Your task to perform on an android device: turn on priority inbox in the gmail app Image 0: 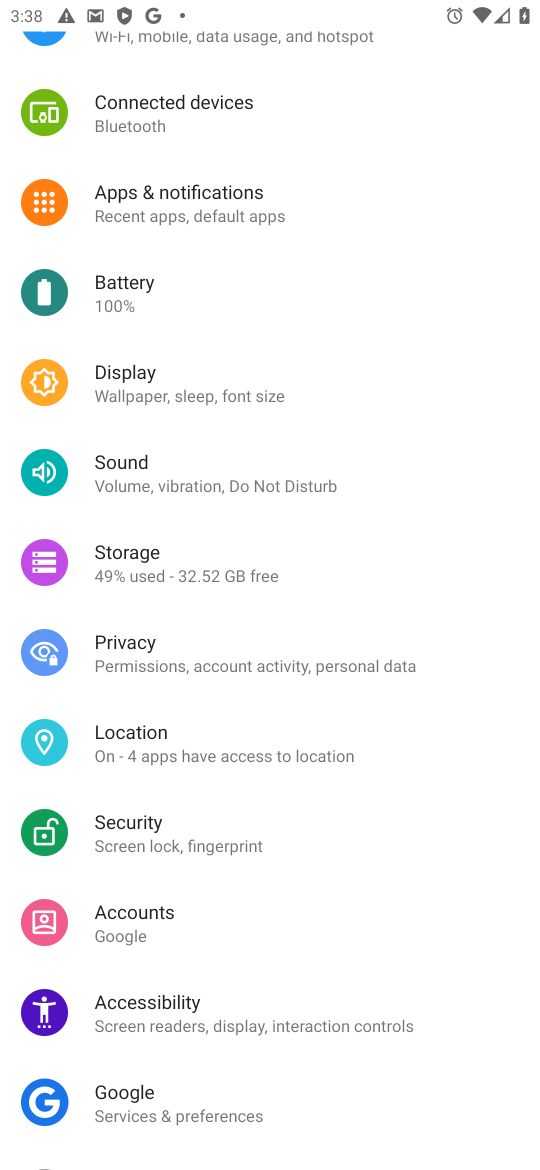
Step 0: press home button
Your task to perform on an android device: turn on priority inbox in the gmail app Image 1: 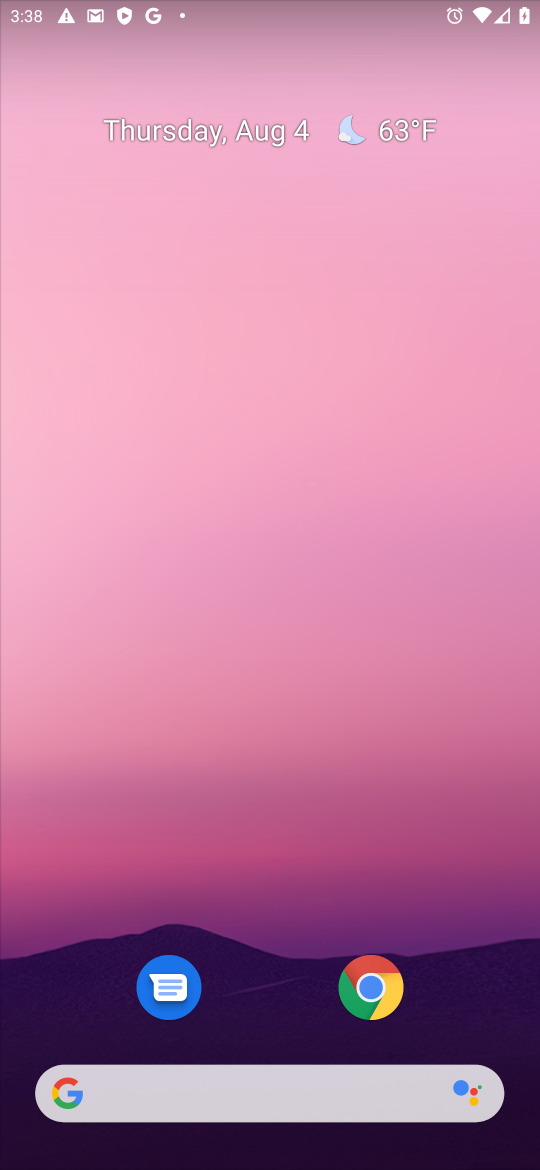
Step 1: drag from (255, 965) to (284, 219)
Your task to perform on an android device: turn on priority inbox in the gmail app Image 2: 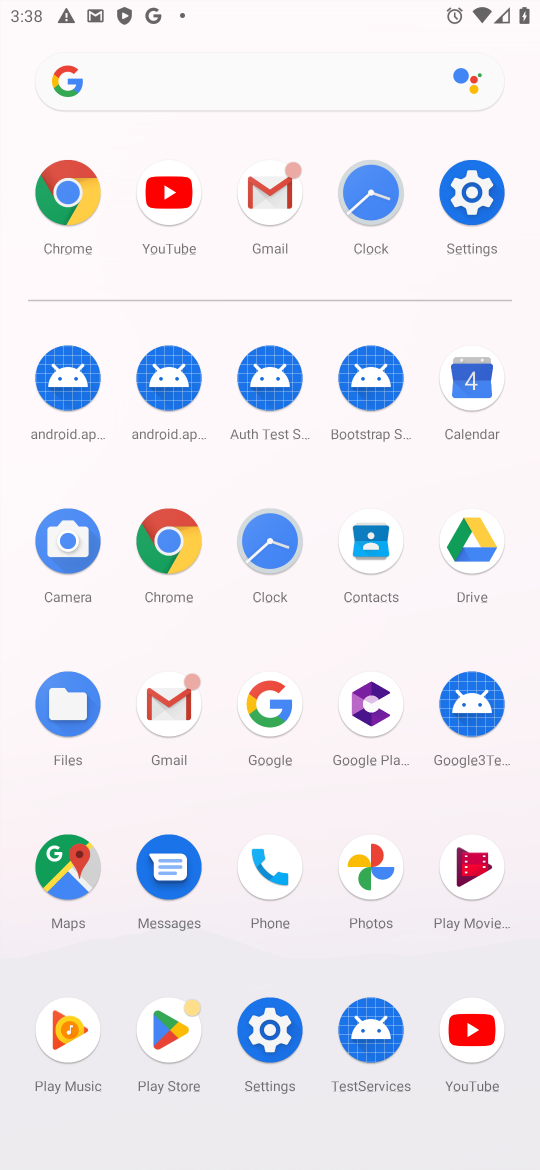
Step 2: click (273, 1040)
Your task to perform on an android device: turn on priority inbox in the gmail app Image 3: 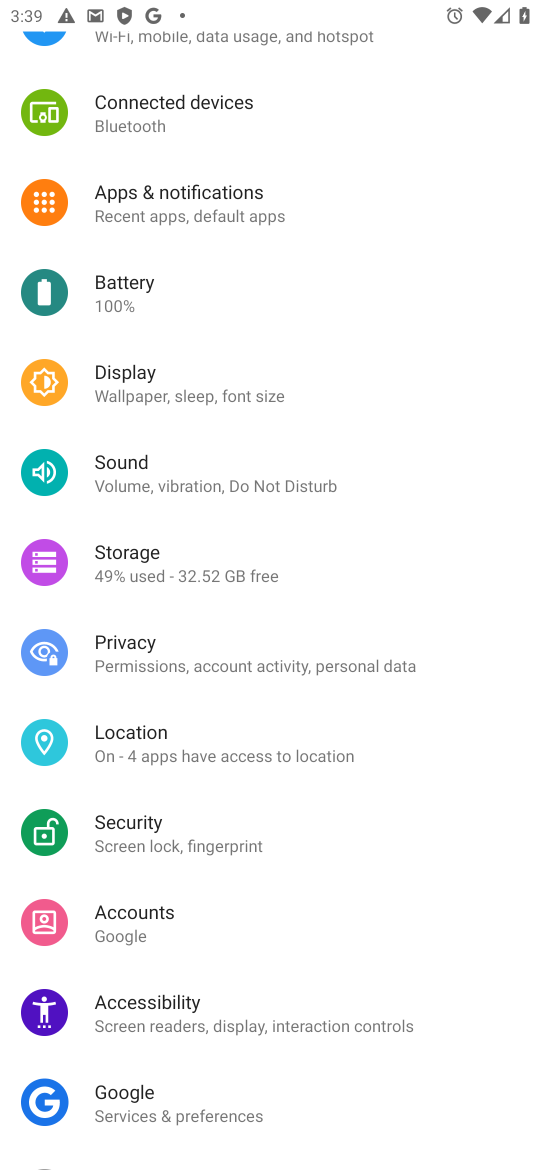
Step 3: press back button
Your task to perform on an android device: turn on priority inbox in the gmail app Image 4: 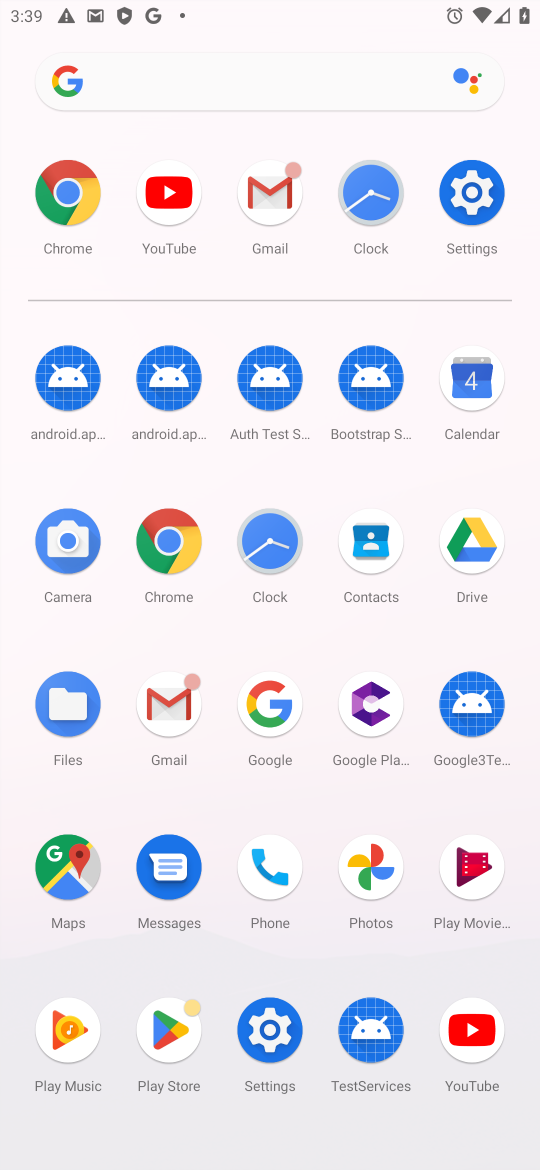
Step 4: click (268, 218)
Your task to perform on an android device: turn on priority inbox in the gmail app Image 5: 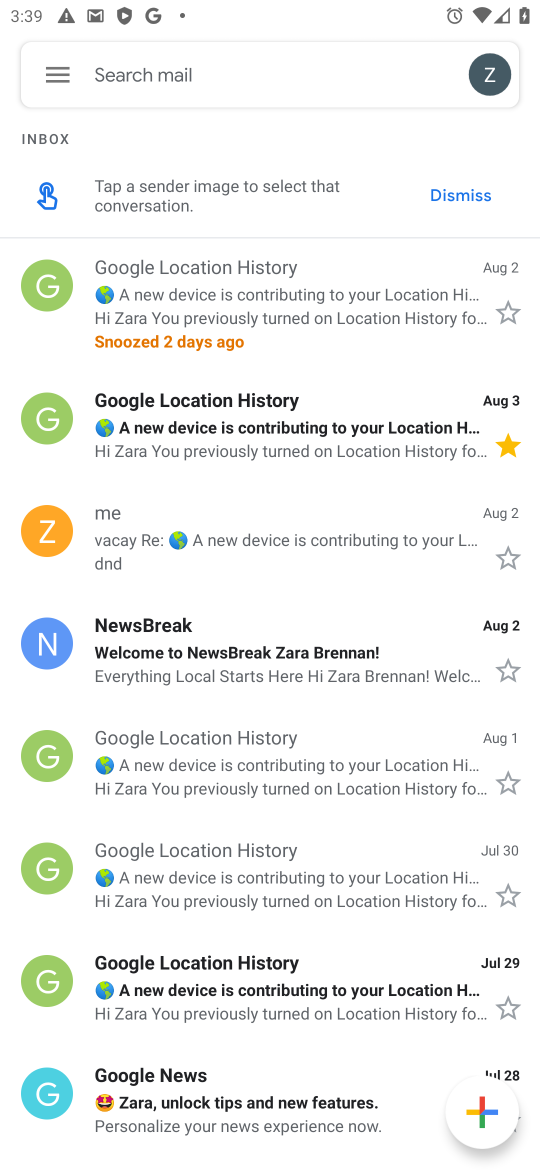
Step 5: click (54, 71)
Your task to perform on an android device: turn on priority inbox in the gmail app Image 6: 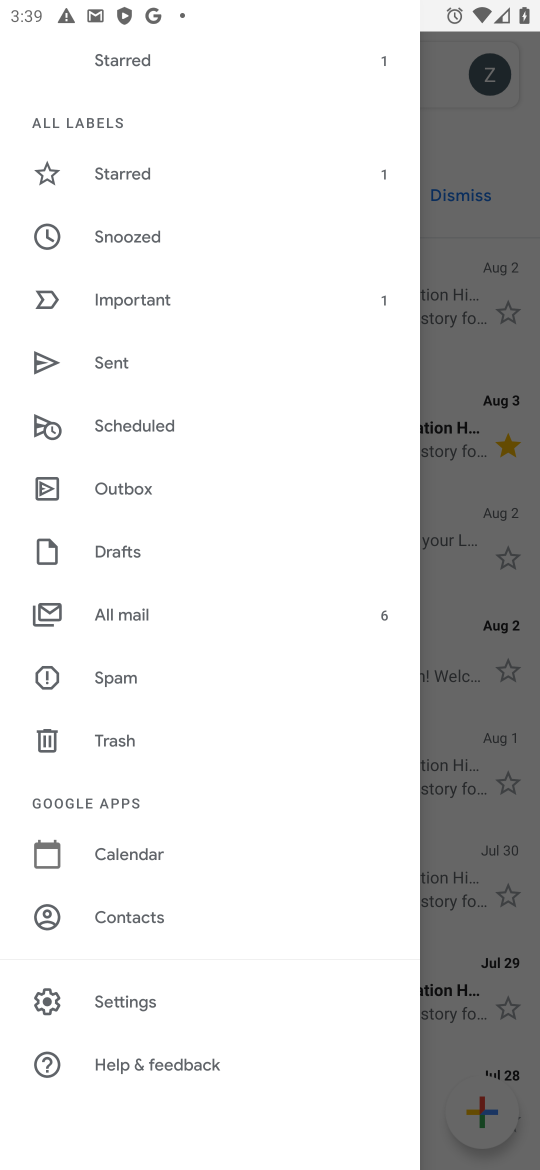
Step 6: click (118, 1002)
Your task to perform on an android device: turn on priority inbox in the gmail app Image 7: 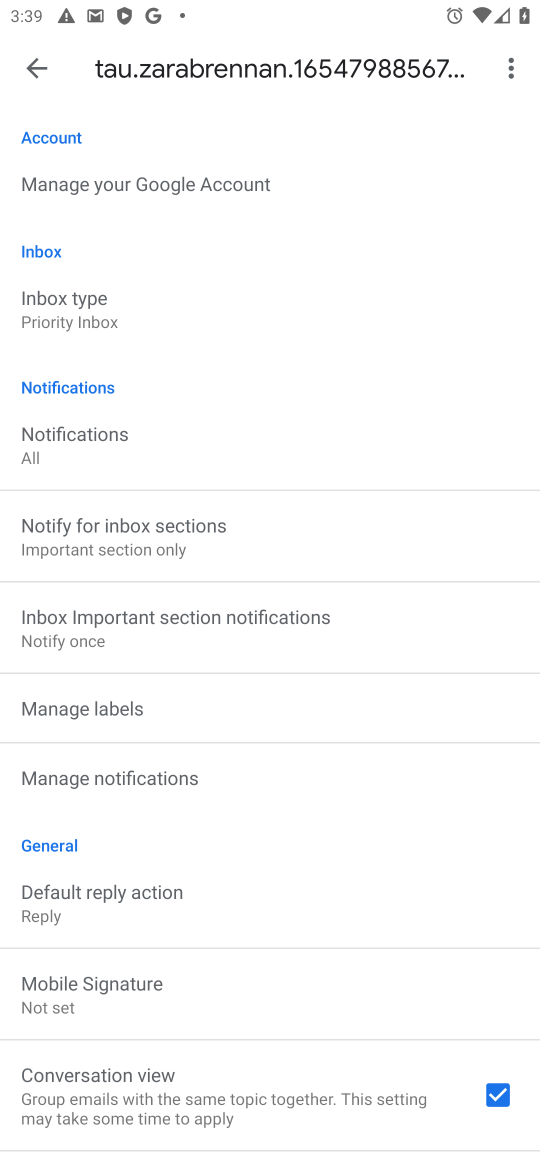
Step 7: click (73, 323)
Your task to perform on an android device: turn on priority inbox in the gmail app Image 8: 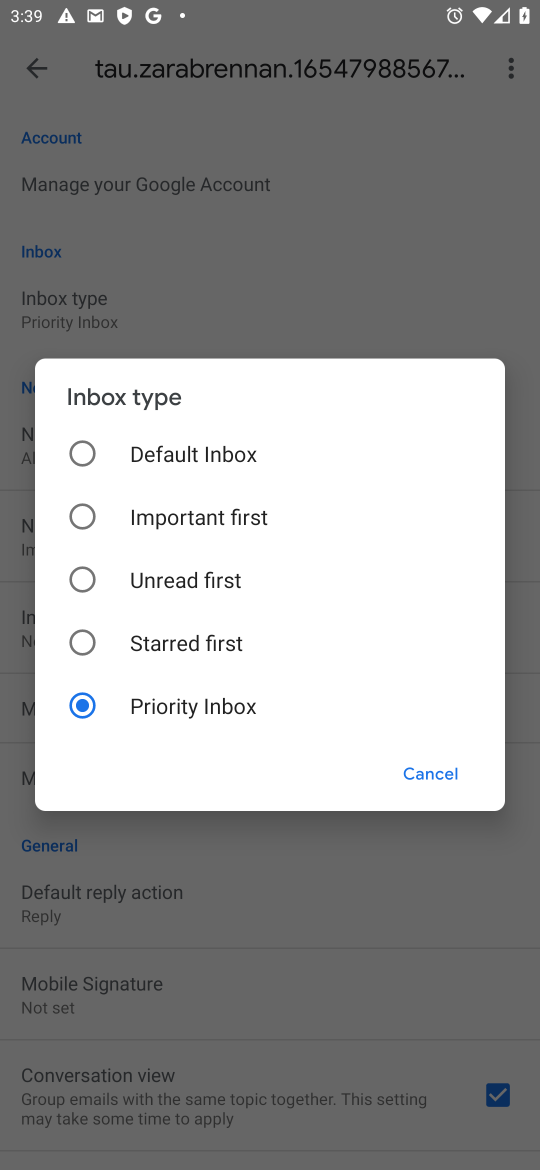
Step 8: task complete